Your task to perform on an android device: Is it going to rain today? Image 0: 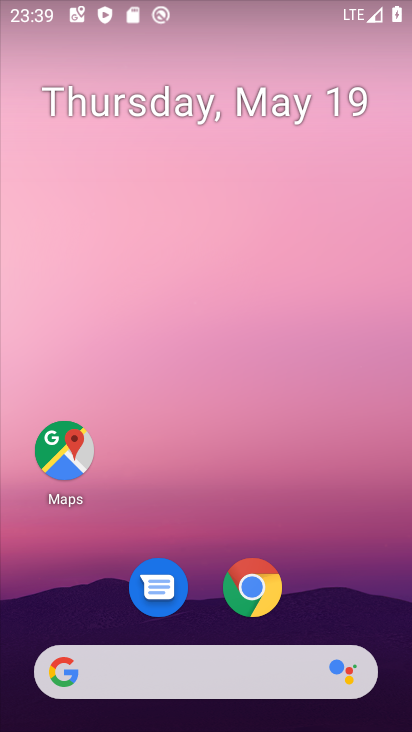
Step 0: press back button
Your task to perform on an android device: Is it going to rain today? Image 1: 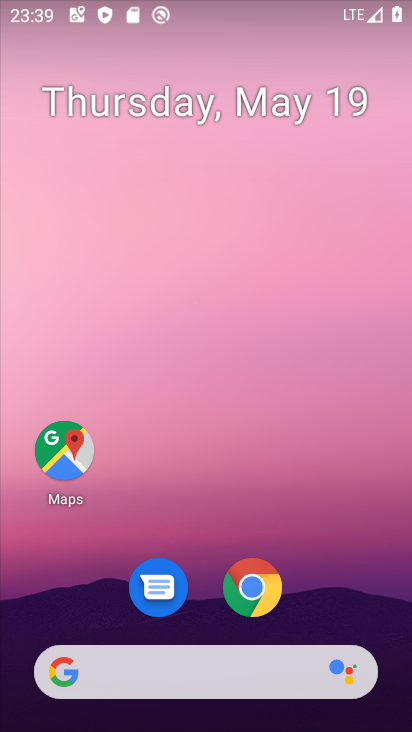
Step 1: drag from (229, 712) to (163, 258)
Your task to perform on an android device: Is it going to rain today? Image 2: 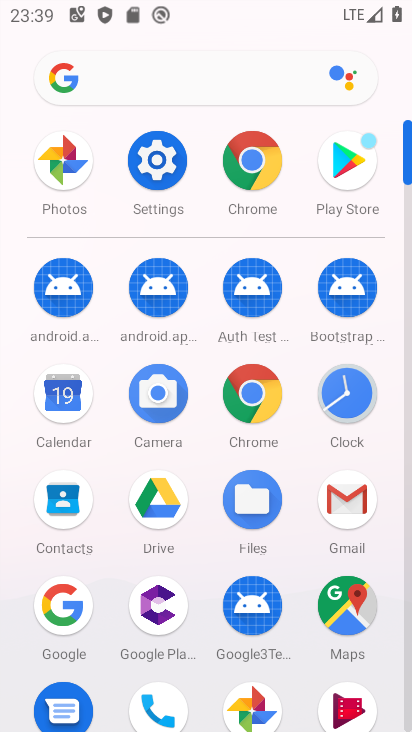
Step 2: click (143, 67)
Your task to perform on an android device: Is it going to rain today? Image 3: 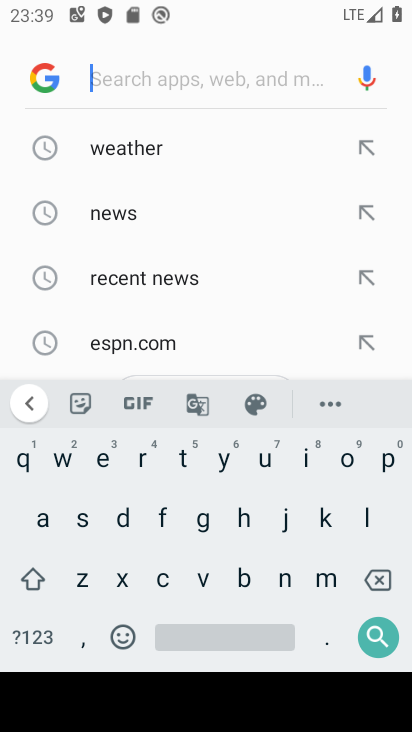
Step 3: click (167, 157)
Your task to perform on an android device: Is it going to rain today? Image 4: 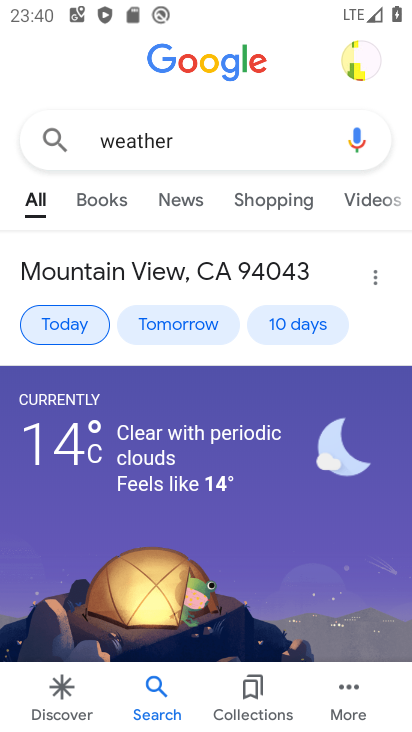
Step 4: task complete